Your task to perform on an android device: View the shopping cart on amazon. Image 0: 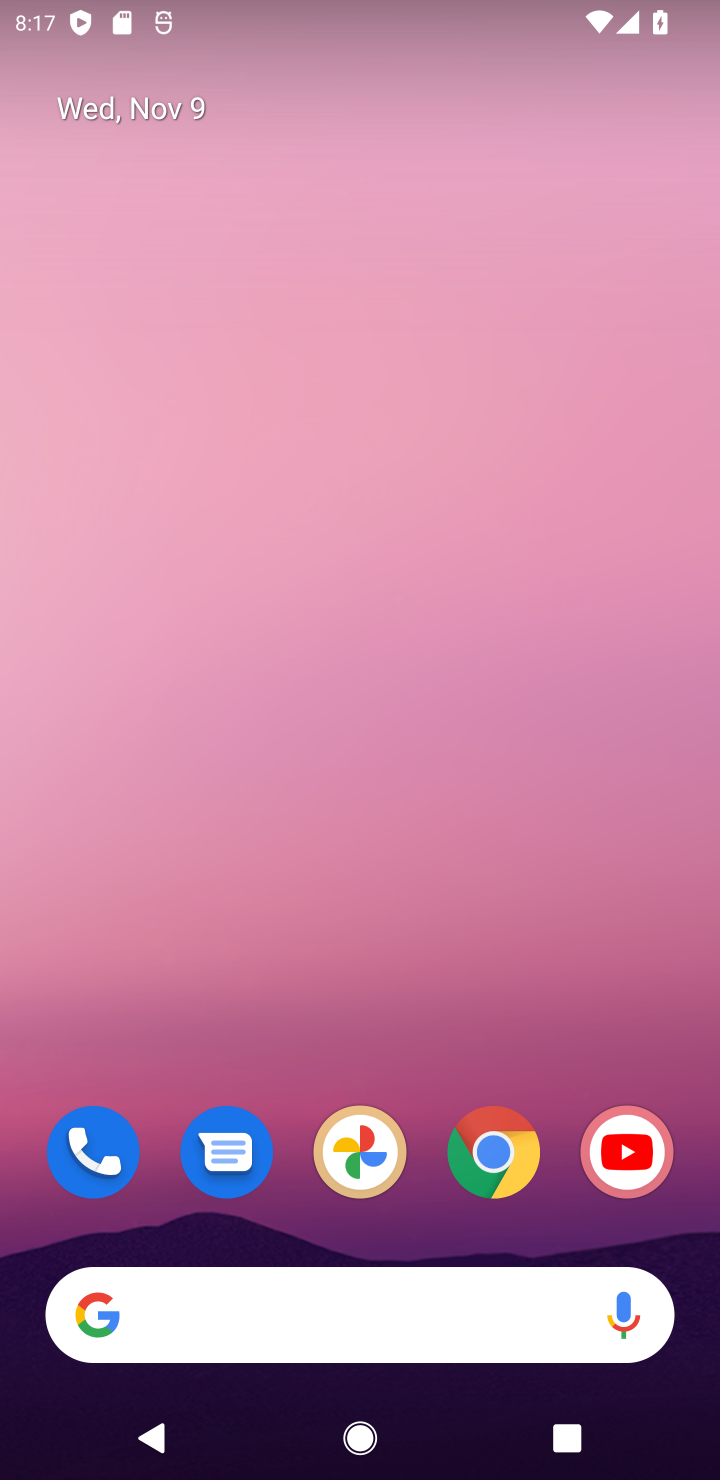
Step 0: press home button
Your task to perform on an android device: View the shopping cart on amazon. Image 1: 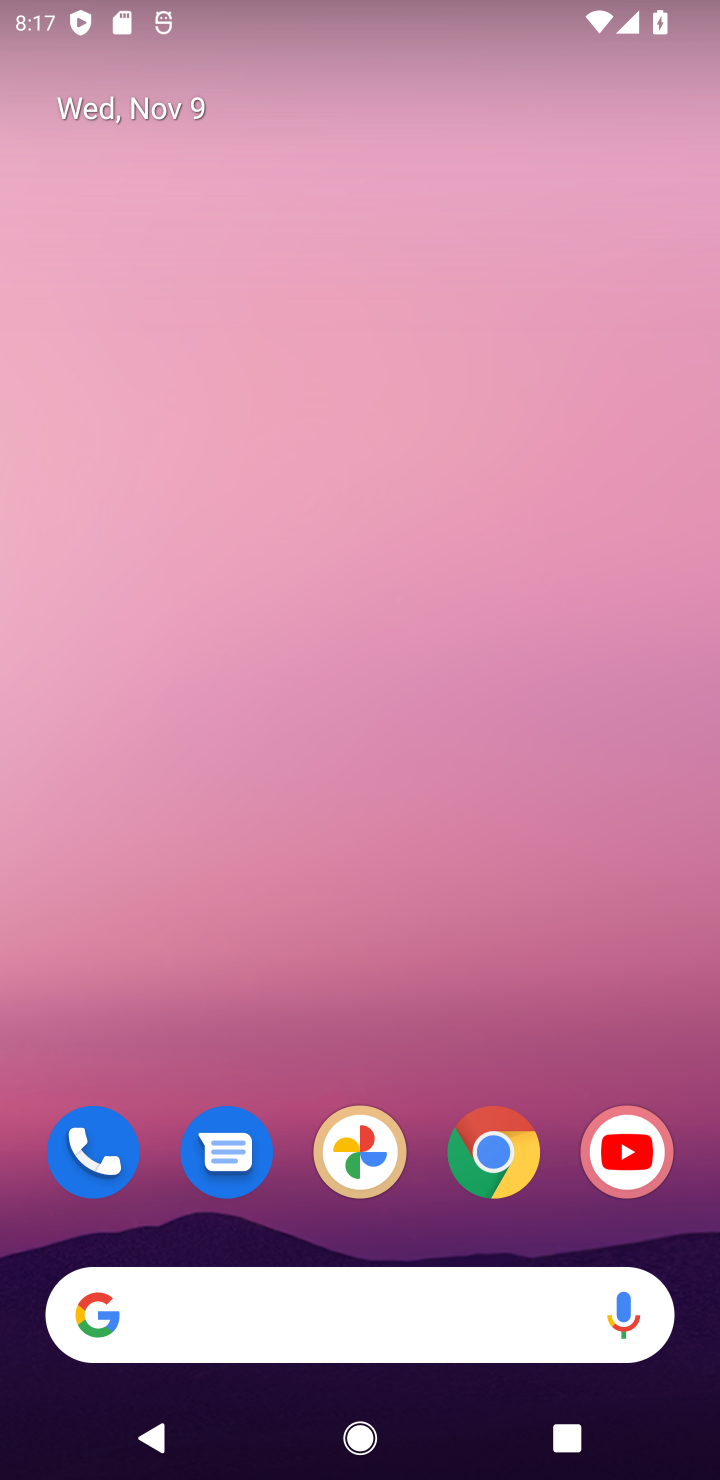
Step 1: click (492, 1151)
Your task to perform on an android device: View the shopping cart on amazon. Image 2: 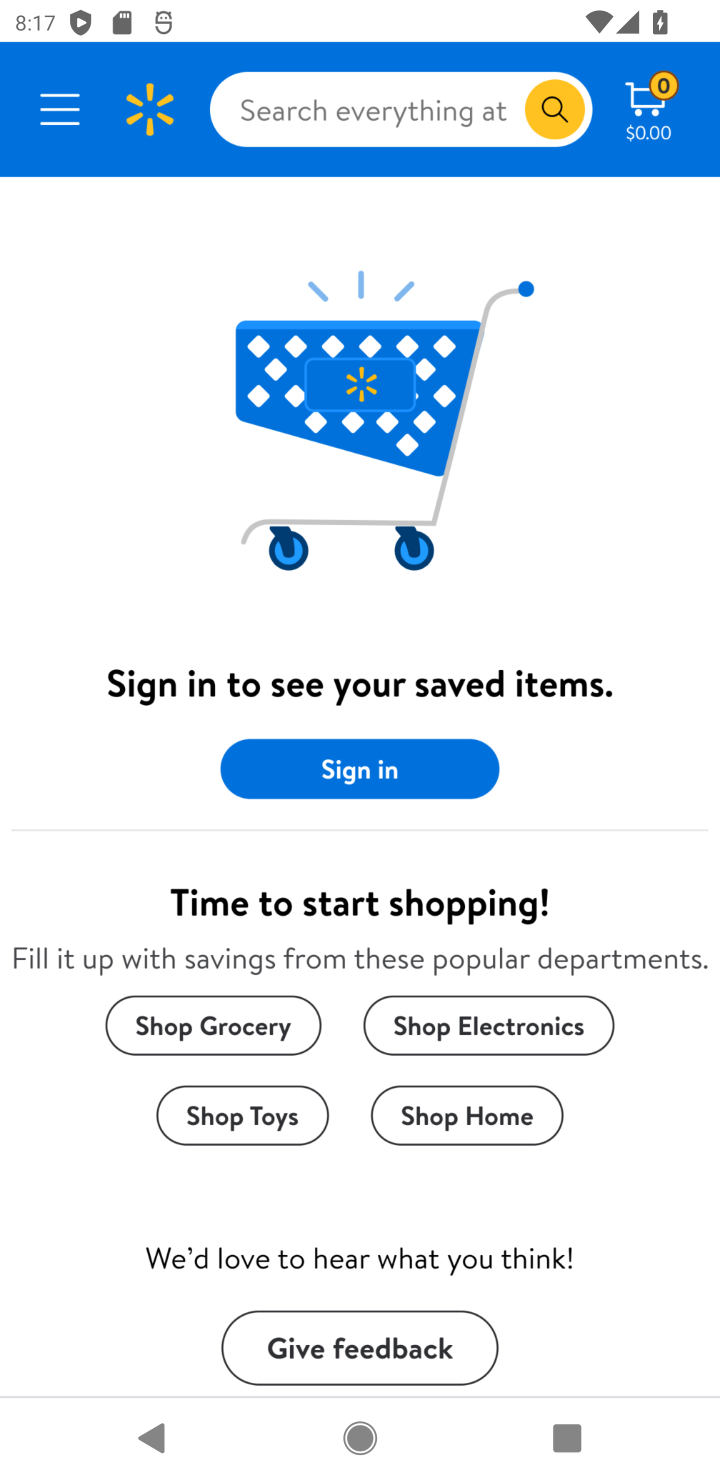
Step 2: click (492, 1151)
Your task to perform on an android device: View the shopping cart on amazon. Image 3: 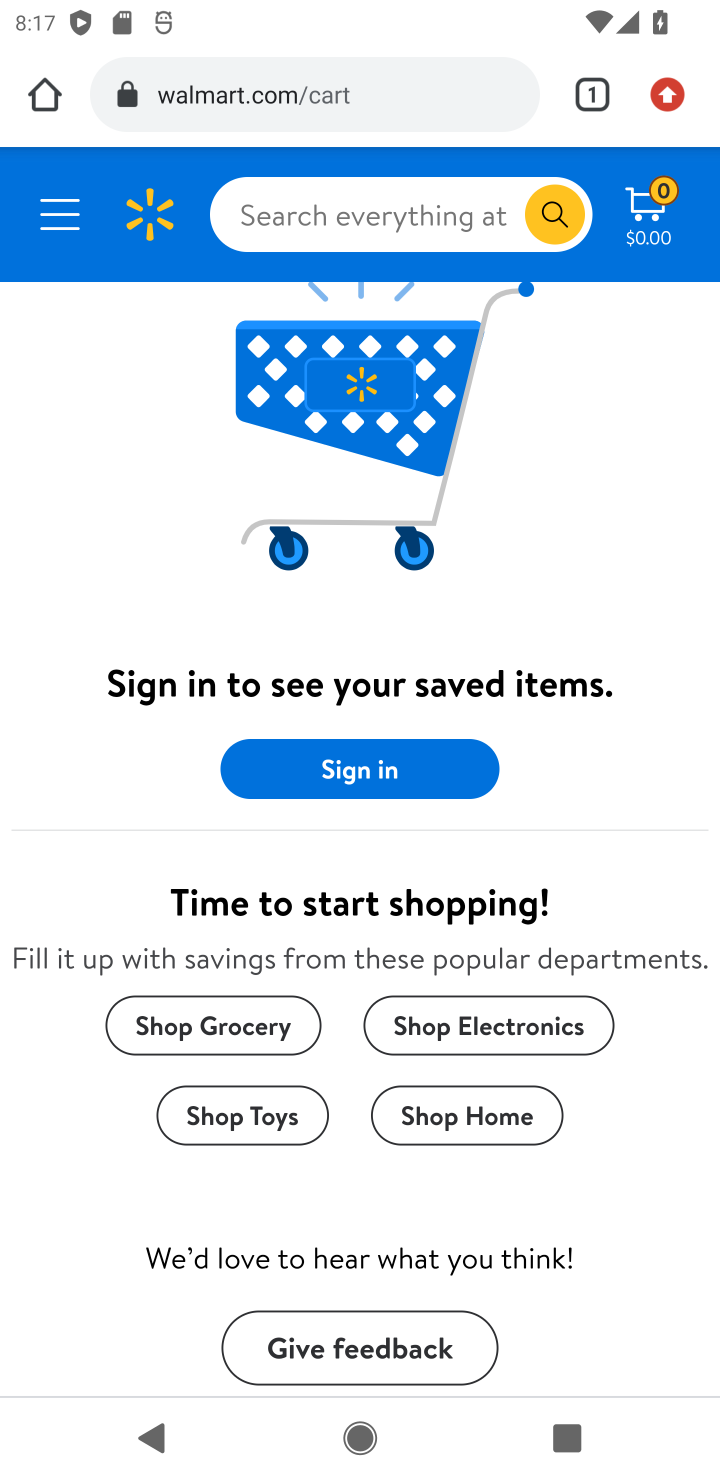
Step 3: click (316, 98)
Your task to perform on an android device: View the shopping cart on amazon. Image 4: 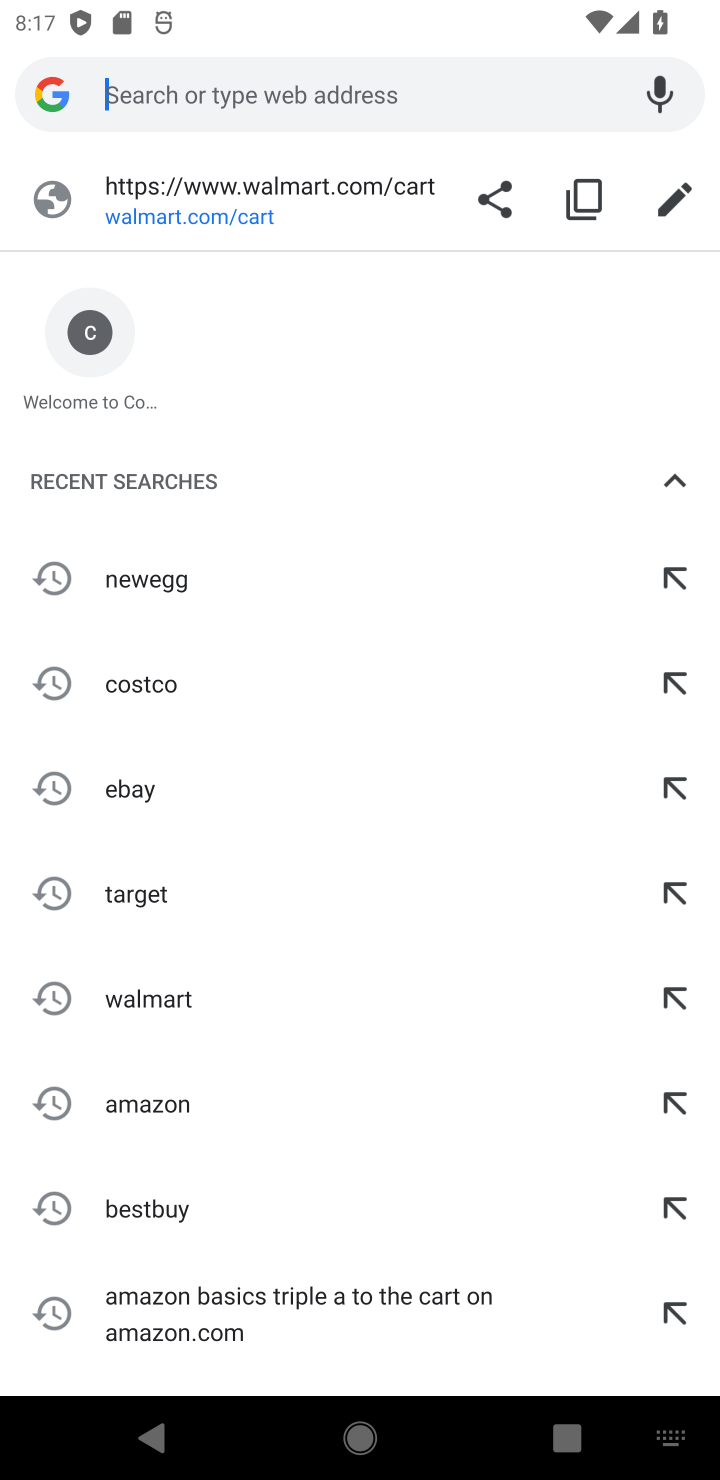
Step 4: click (151, 1103)
Your task to perform on an android device: View the shopping cart on amazon. Image 5: 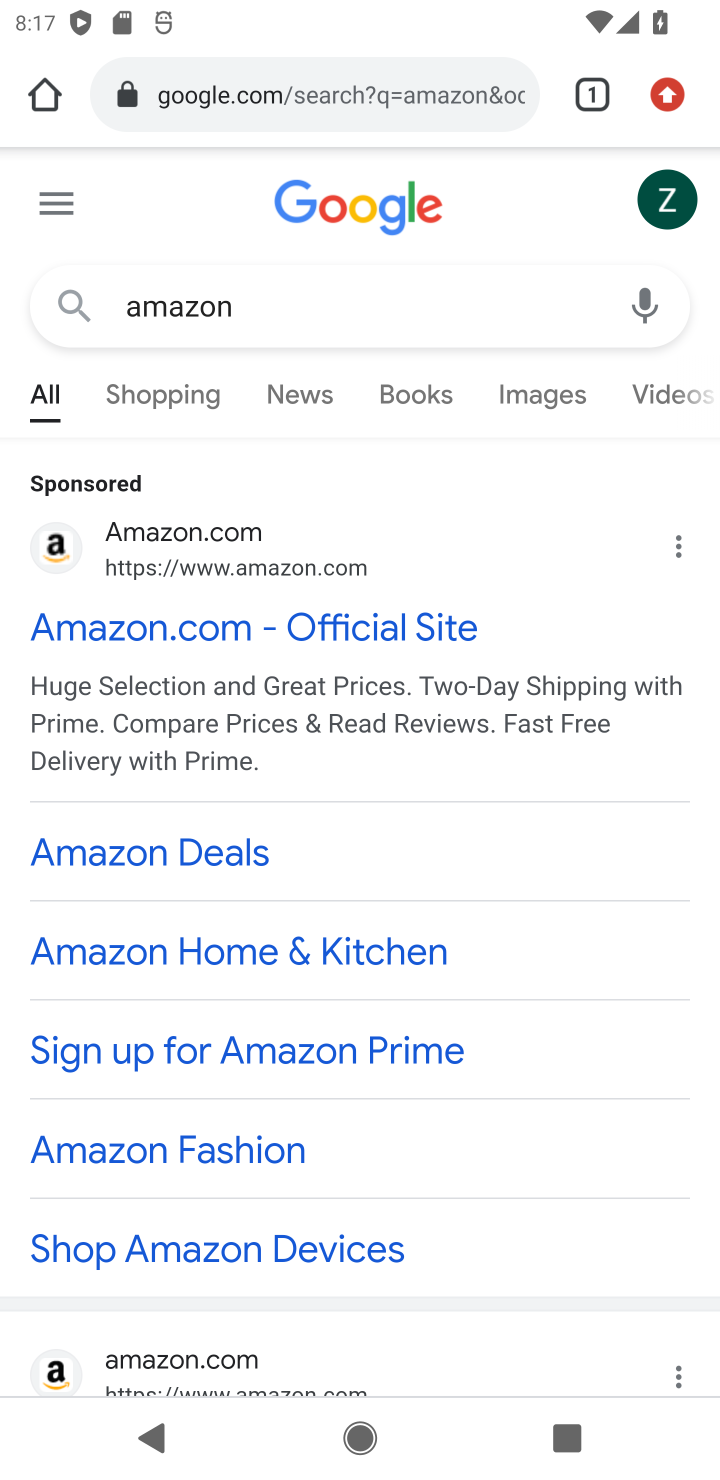
Step 5: click (186, 624)
Your task to perform on an android device: View the shopping cart on amazon. Image 6: 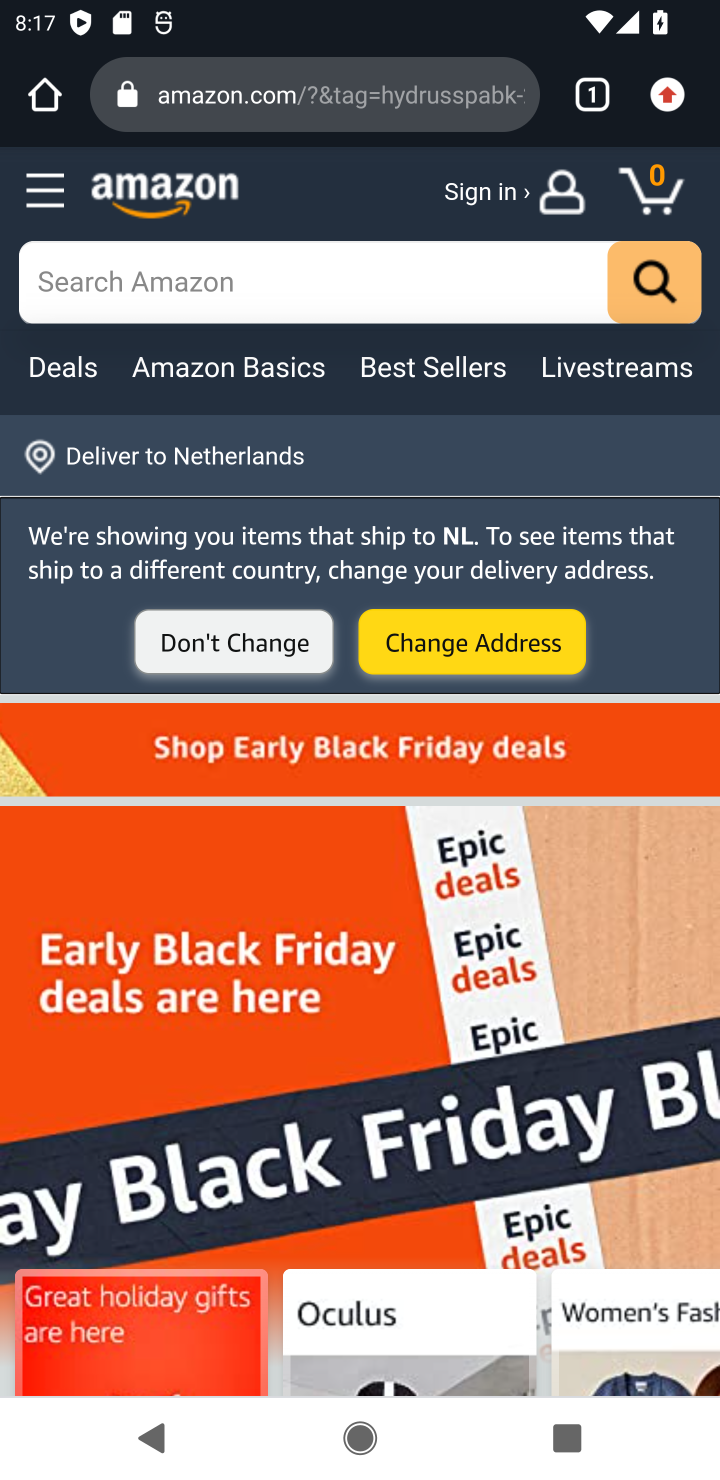
Step 6: click (260, 270)
Your task to perform on an android device: View the shopping cart on amazon. Image 7: 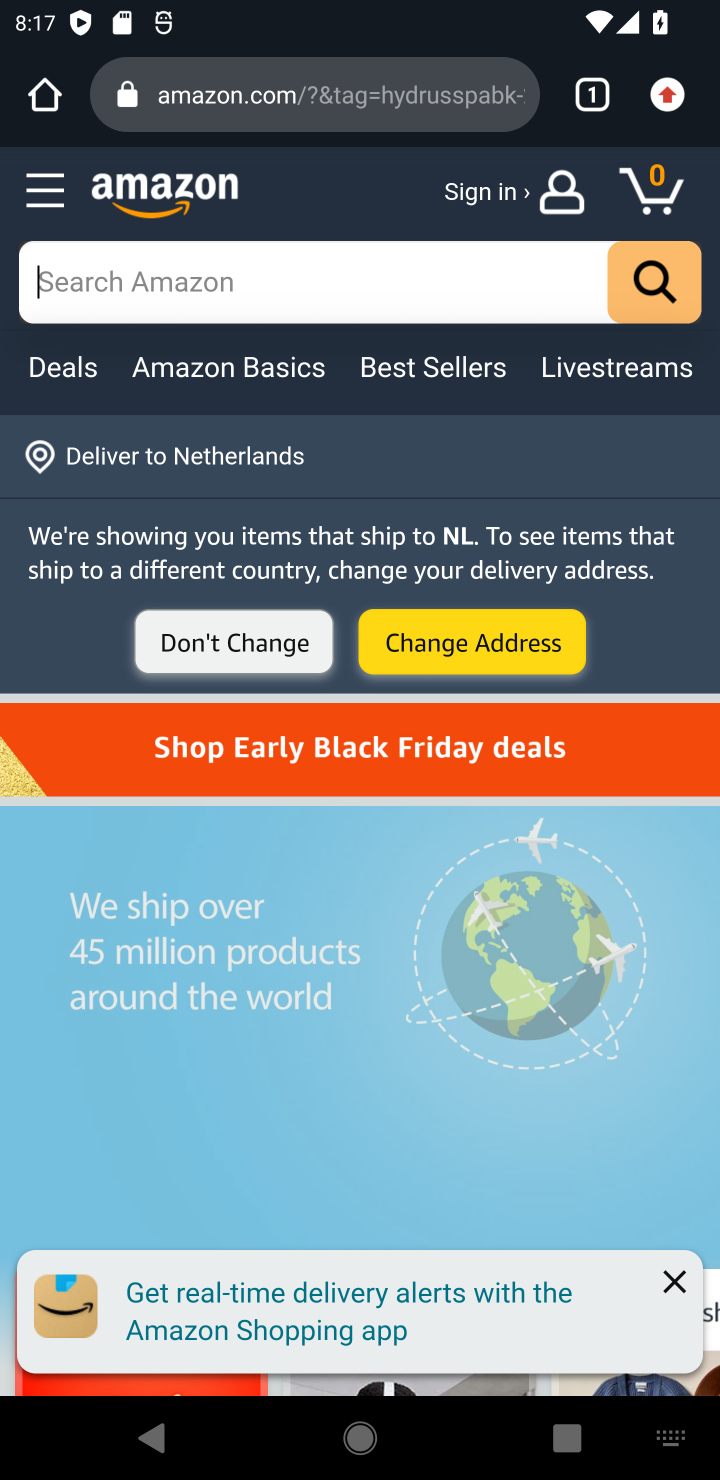
Step 7: click (661, 186)
Your task to perform on an android device: View the shopping cart on amazon. Image 8: 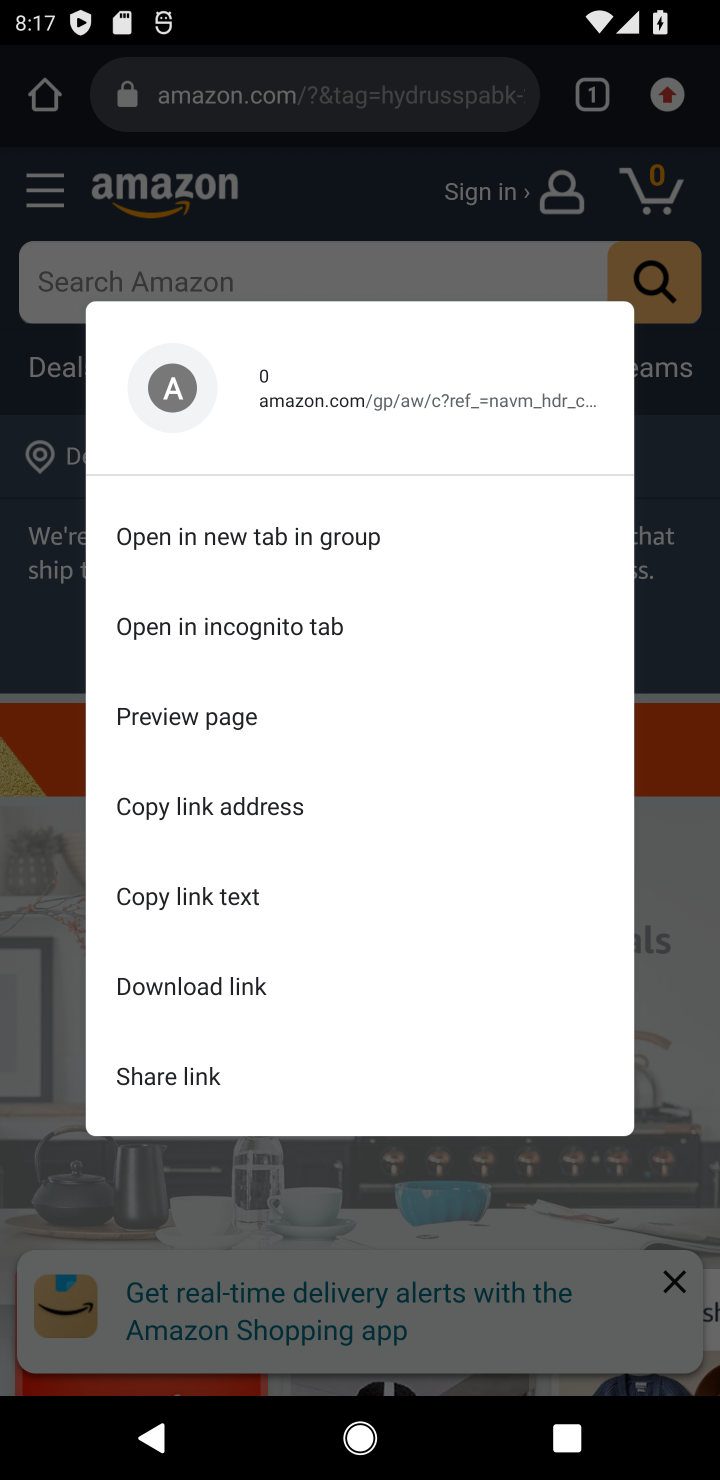
Step 8: click (649, 177)
Your task to perform on an android device: View the shopping cart on amazon. Image 9: 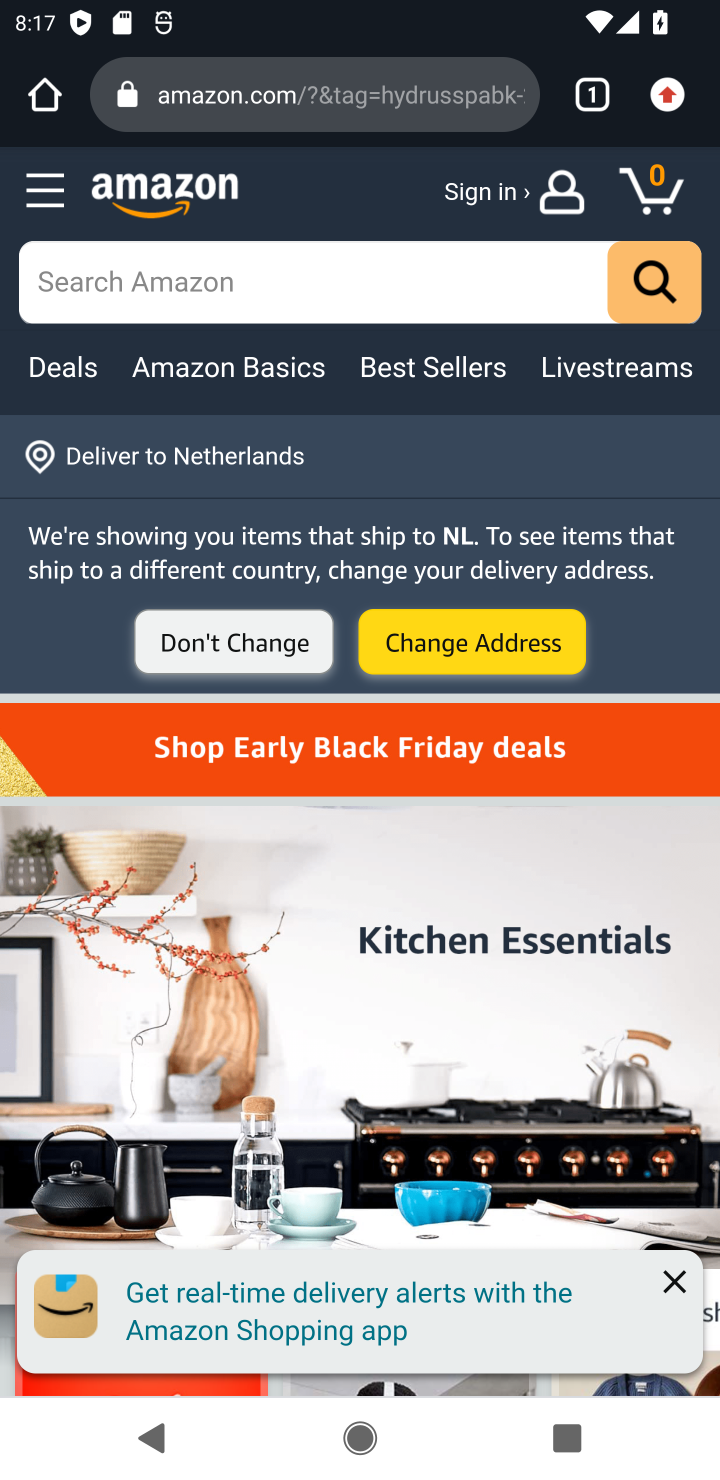
Step 9: click (655, 174)
Your task to perform on an android device: View the shopping cart on amazon. Image 10: 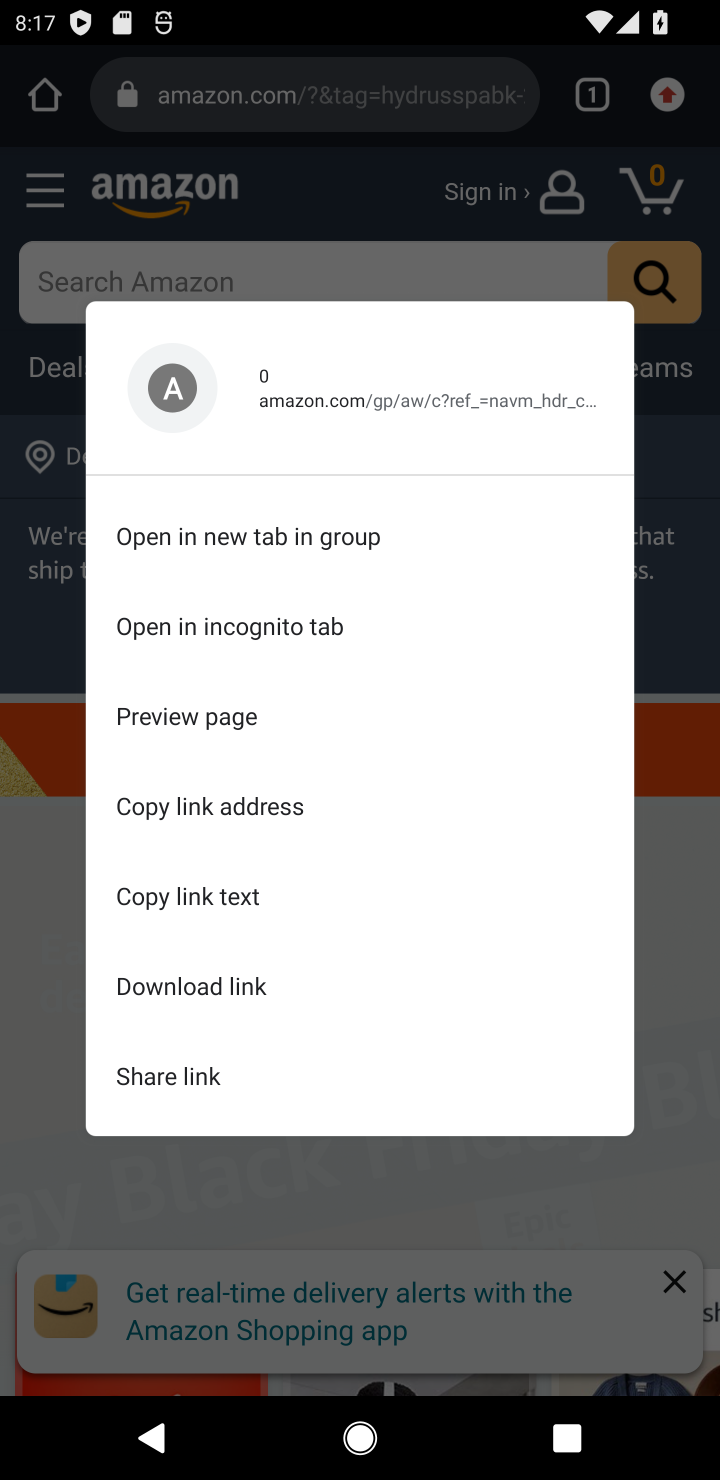
Step 10: click (636, 172)
Your task to perform on an android device: View the shopping cart on amazon. Image 11: 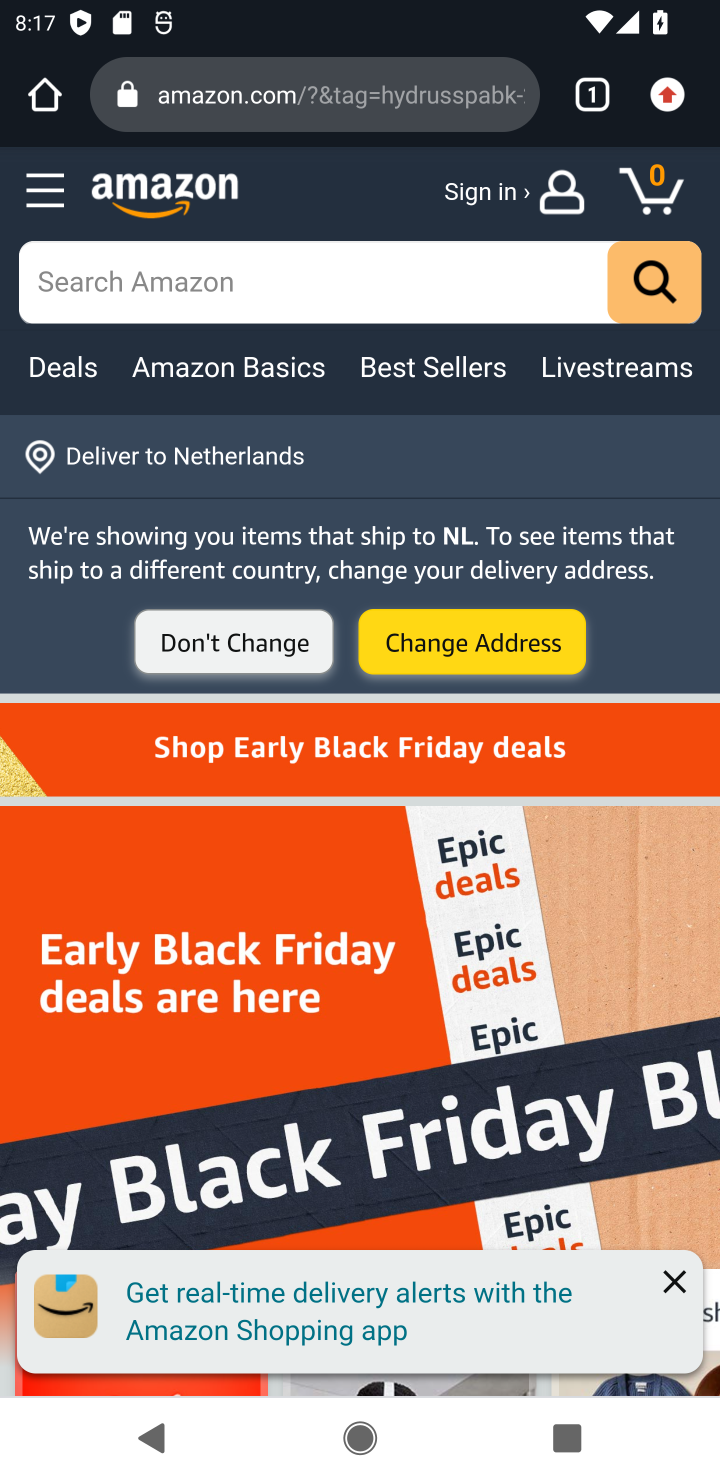
Step 11: click (649, 195)
Your task to perform on an android device: View the shopping cart on amazon. Image 12: 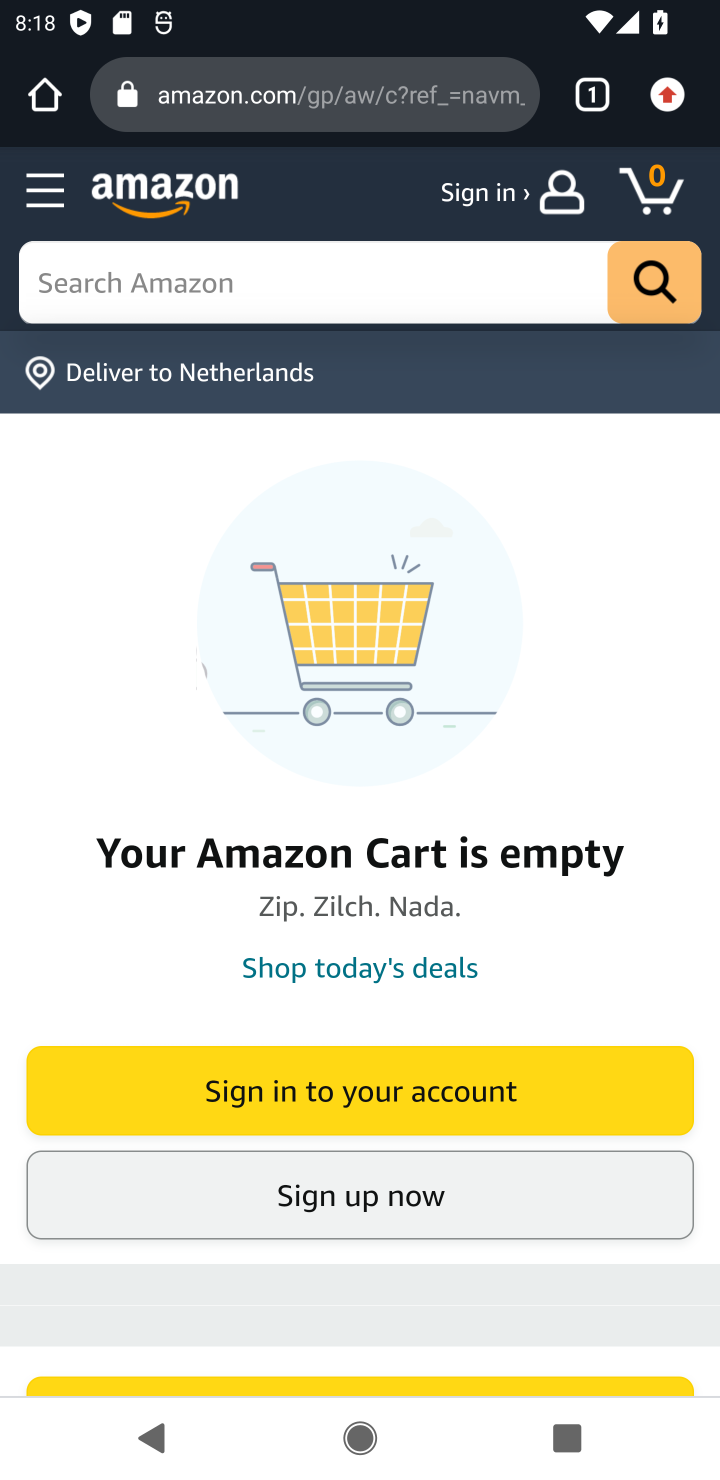
Step 12: task complete